Your task to perform on an android device: Turn on the flashlight Image 0: 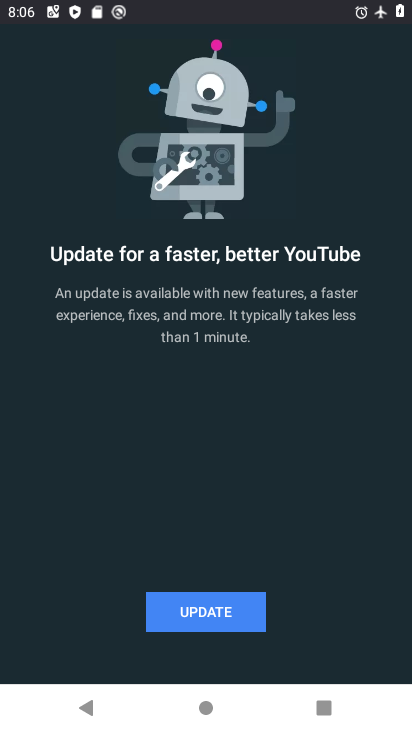
Step 0: drag from (285, 4) to (200, 710)
Your task to perform on an android device: Turn on the flashlight Image 1: 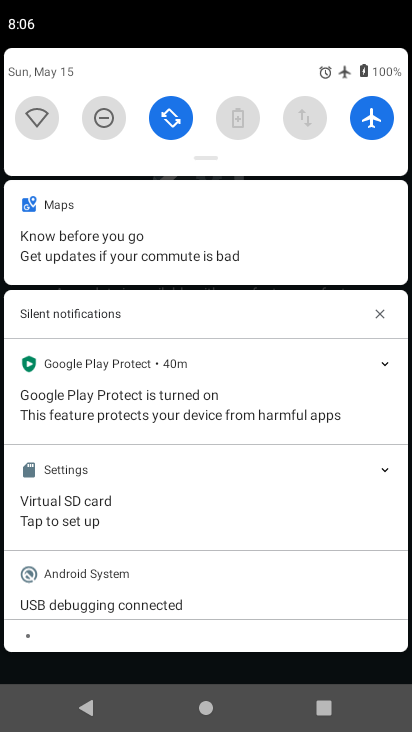
Step 1: task complete